Your task to perform on an android device: Open calendar and show me the second week of next month Image 0: 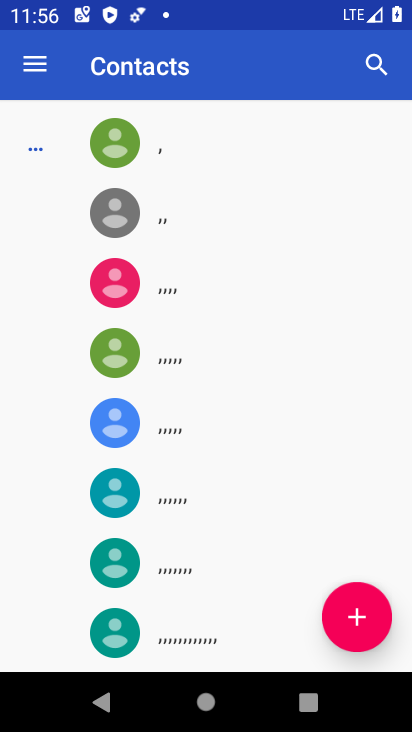
Step 0: press home button
Your task to perform on an android device: Open calendar and show me the second week of next month Image 1: 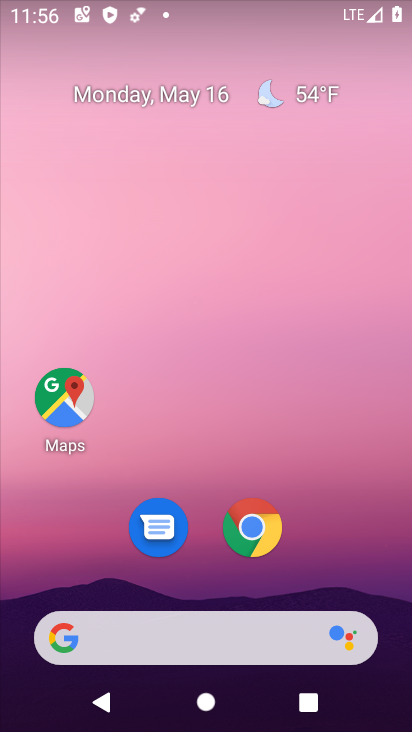
Step 1: drag from (258, 670) to (277, 191)
Your task to perform on an android device: Open calendar and show me the second week of next month Image 2: 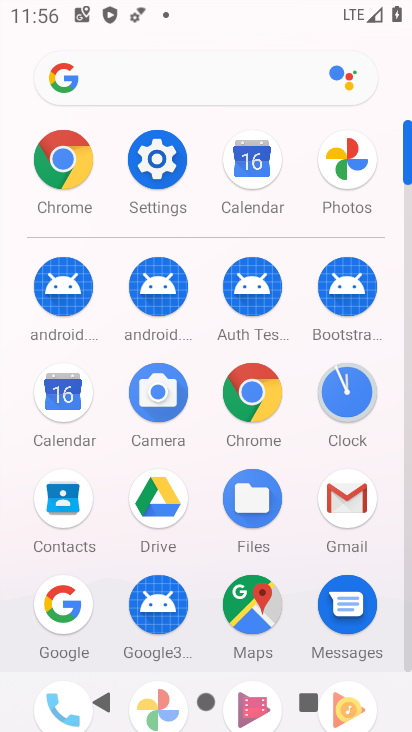
Step 2: click (55, 392)
Your task to perform on an android device: Open calendar and show me the second week of next month Image 3: 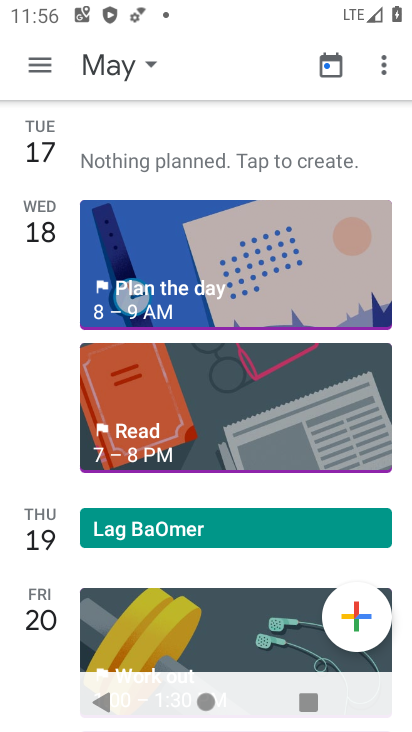
Step 3: click (36, 77)
Your task to perform on an android device: Open calendar and show me the second week of next month Image 4: 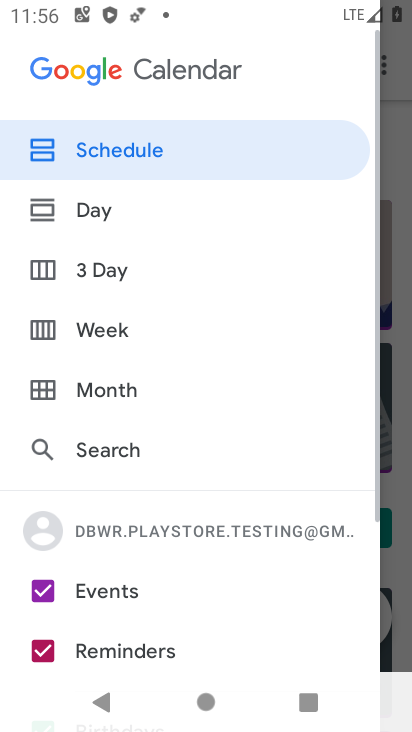
Step 4: click (128, 397)
Your task to perform on an android device: Open calendar and show me the second week of next month Image 5: 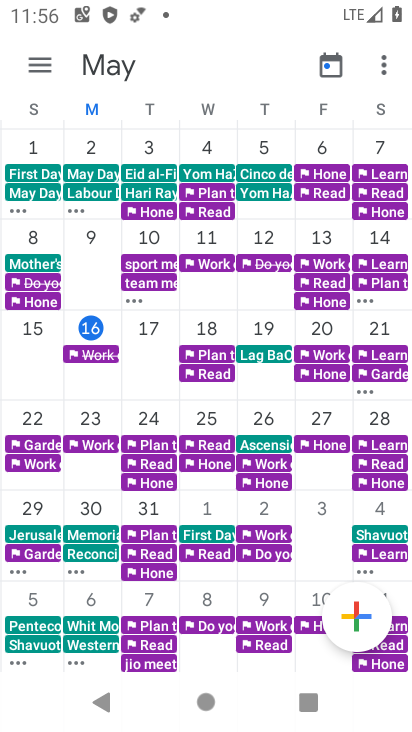
Step 5: drag from (375, 429) to (31, 471)
Your task to perform on an android device: Open calendar and show me the second week of next month Image 6: 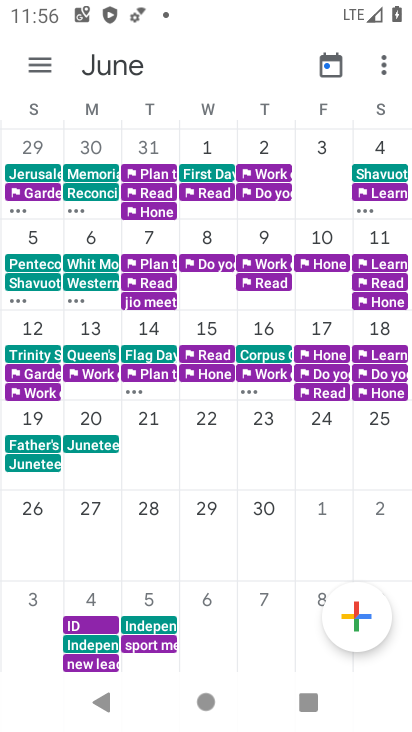
Step 6: click (88, 320)
Your task to perform on an android device: Open calendar and show me the second week of next month Image 7: 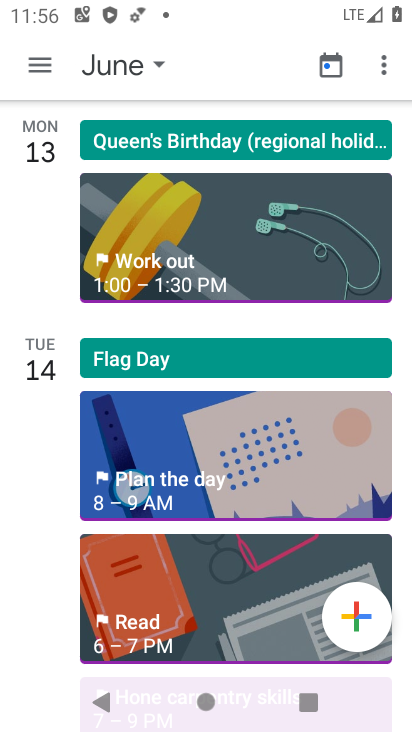
Step 7: task complete